Your task to perform on an android device: turn on notifications settings in the gmail app Image 0: 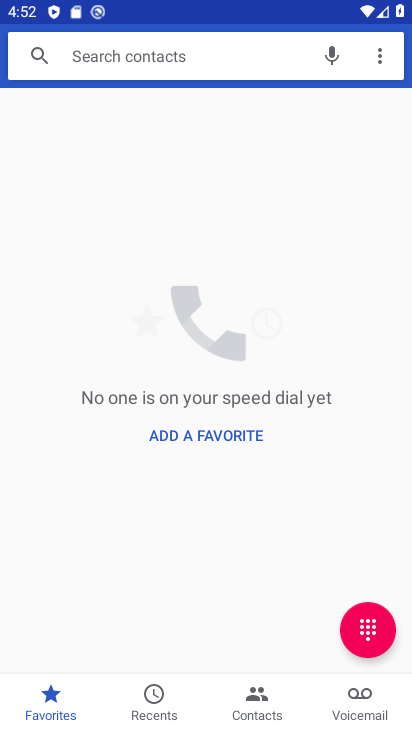
Step 0: press home button
Your task to perform on an android device: turn on notifications settings in the gmail app Image 1: 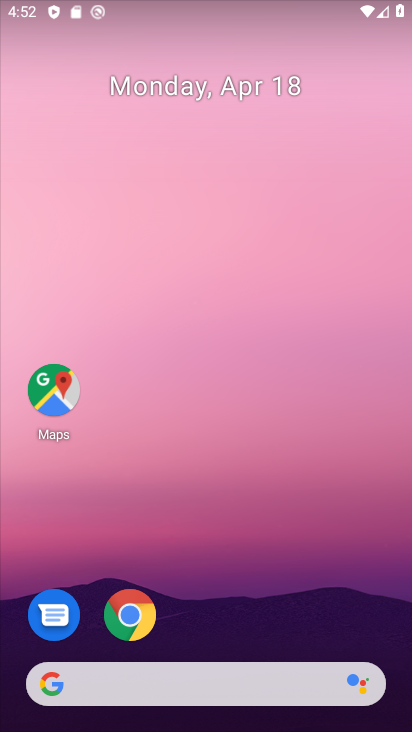
Step 1: drag from (327, 590) to (323, 102)
Your task to perform on an android device: turn on notifications settings in the gmail app Image 2: 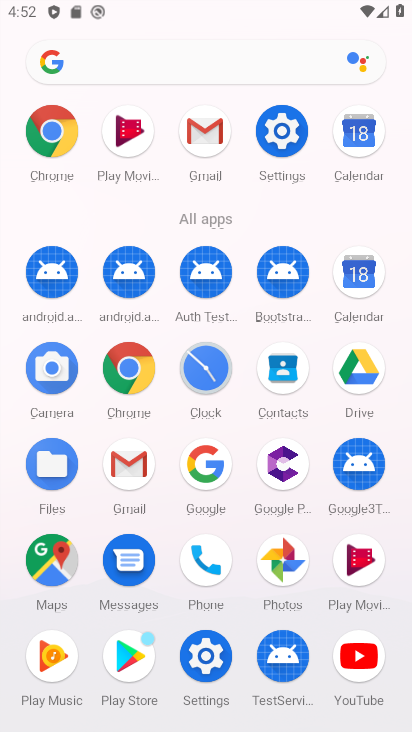
Step 2: click (137, 457)
Your task to perform on an android device: turn on notifications settings in the gmail app Image 3: 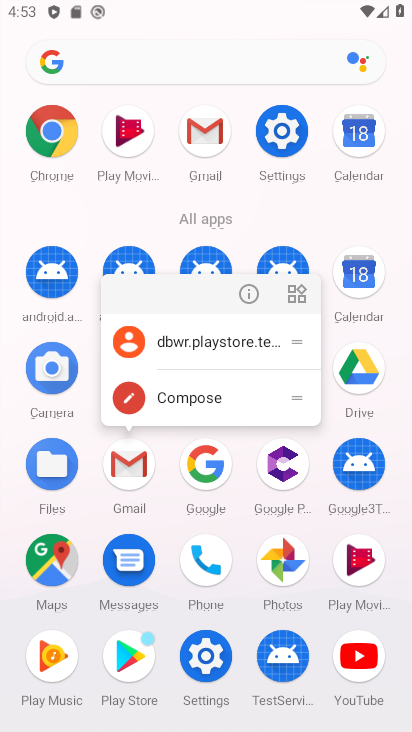
Step 3: click (248, 291)
Your task to perform on an android device: turn on notifications settings in the gmail app Image 4: 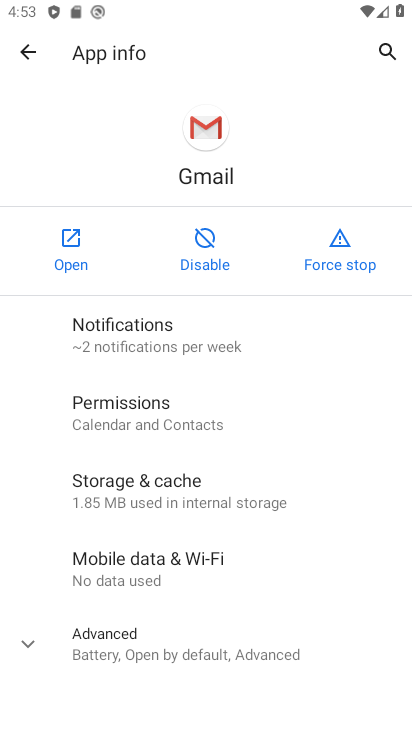
Step 4: click (153, 339)
Your task to perform on an android device: turn on notifications settings in the gmail app Image 5: 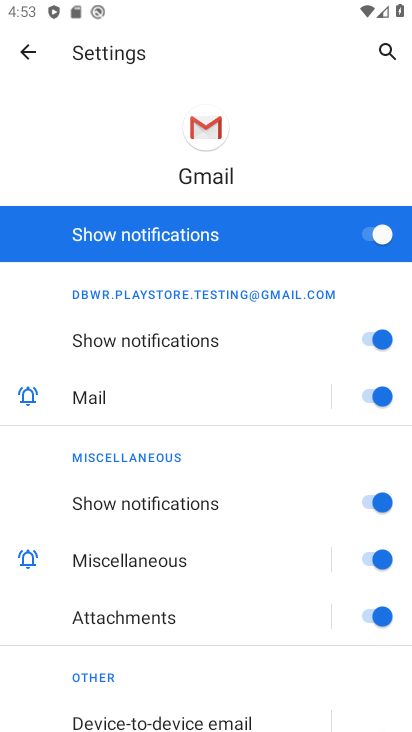
Step 5: task complete